Your task to perform on an android device: What's the weather? Image 0: 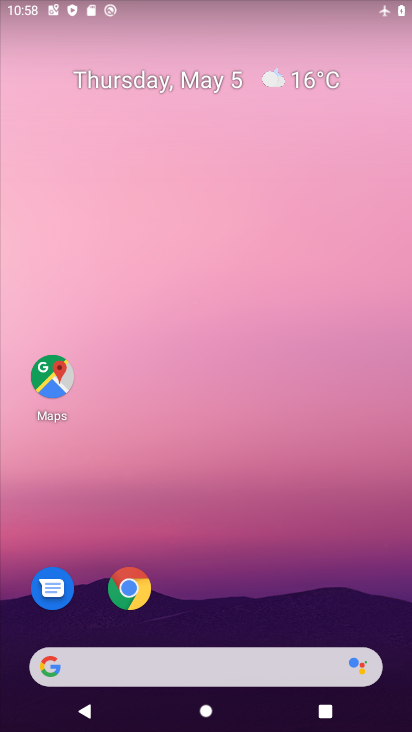
Step 0: drag from (216, 6) to (205, 384)
Your task to perform on an android device: What's the weather? Image 1: 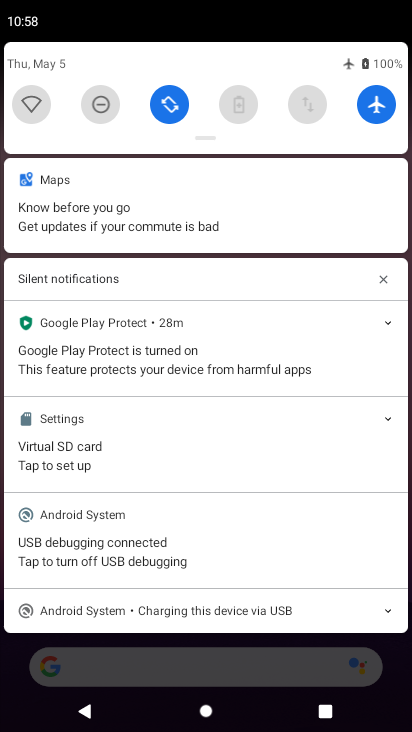
Step 1: click (362, 105)
Your task to perform on an android device: What's the weather? Image 2: 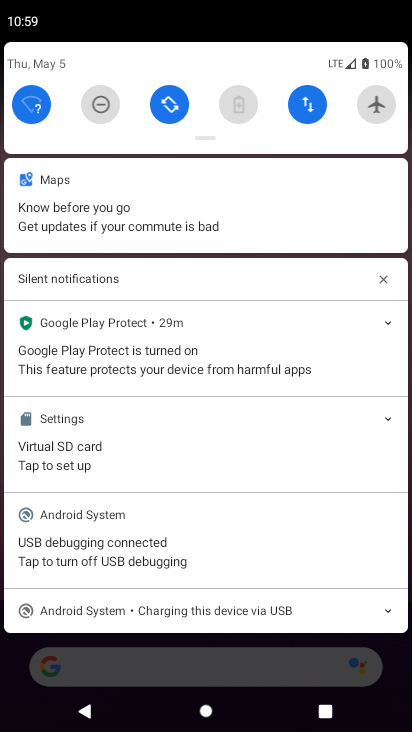
Step 2: click (401, 641)
Your task to perform on an android device: What's the weather? Image 3: 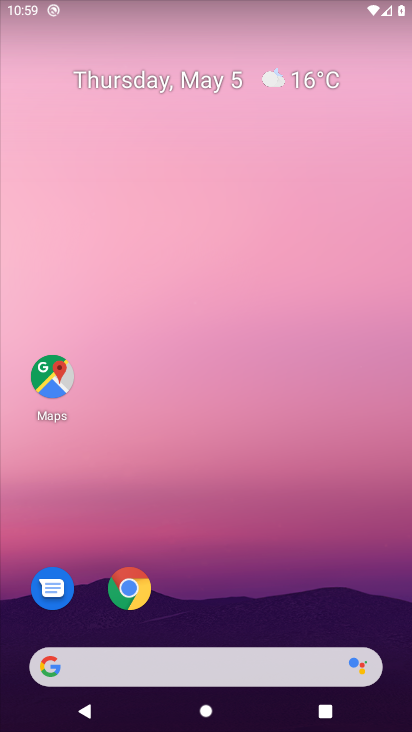
Step 3: click (144, 585)
Your task to perform on an android device: What's the weather? Image 4: 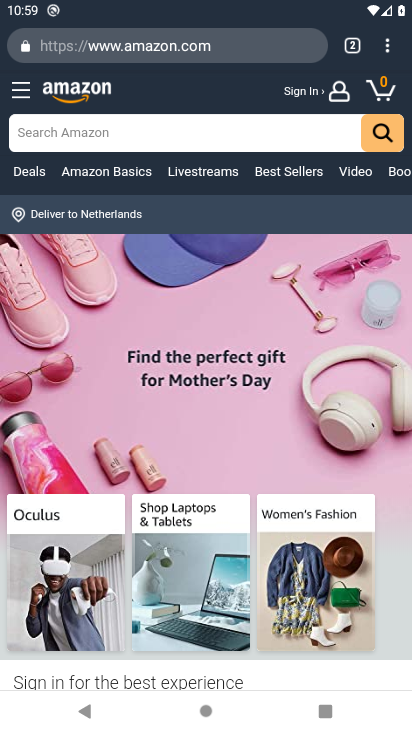
Step 4: drag from (410, 714) to (382, 685)
Your task to perform on an android device: What's the weather? Image 5: 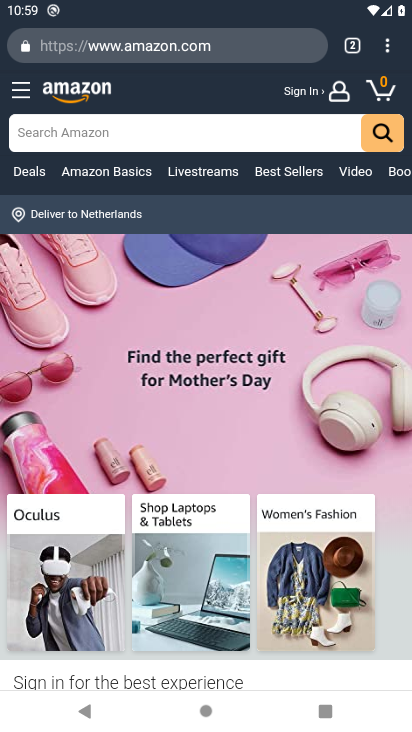
Step 5: click (235, 52)
Your task to perform on an android device: What's the weather? Image 6: 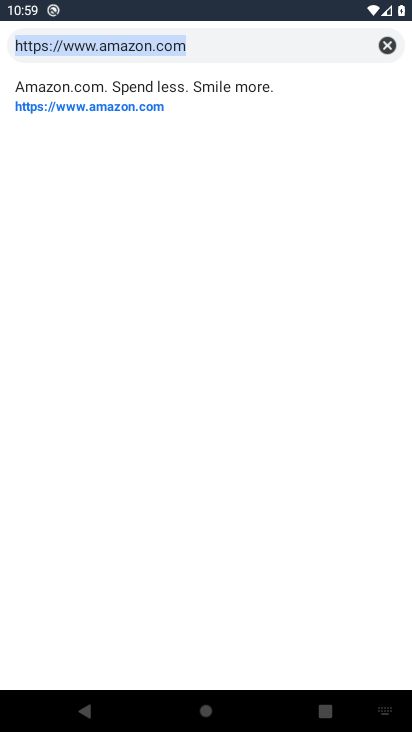
Step 6: type "What's the weather?"
Your task to perform on an android device: What's the weather? Image 7: 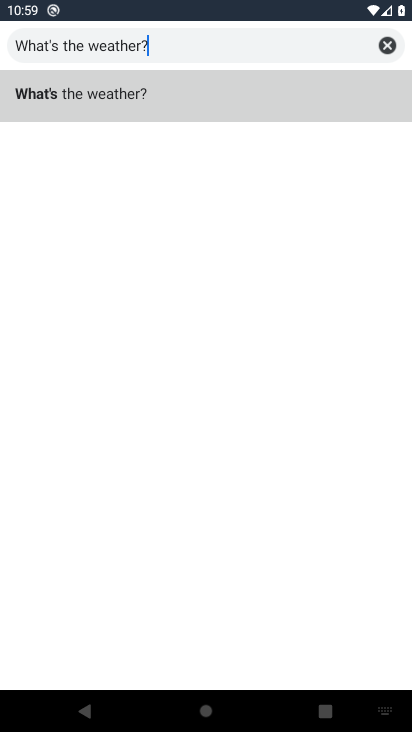
Step 7: click (145, 97)
Your task to perform on an android device: What's the weather? Image 8: 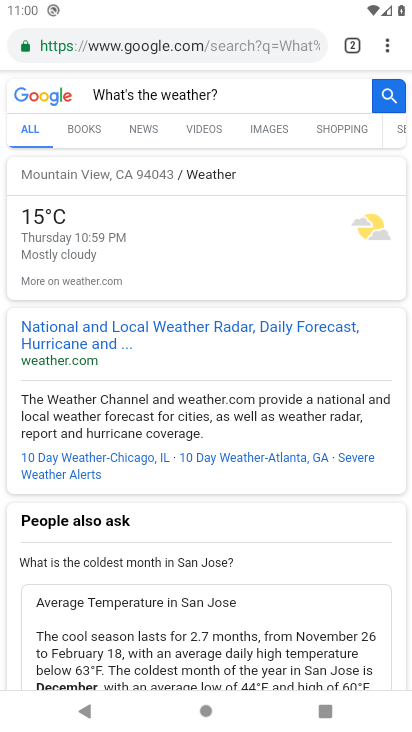
Step 8: click (243, 331)
Your task to perform on an android device: What's the weather? Image 9: 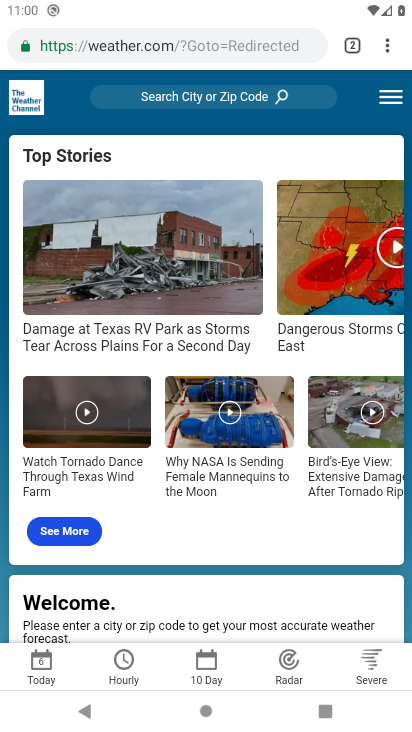
Step 9: task complete